Your task to perform on an android device: Open wifi settings Image 0: 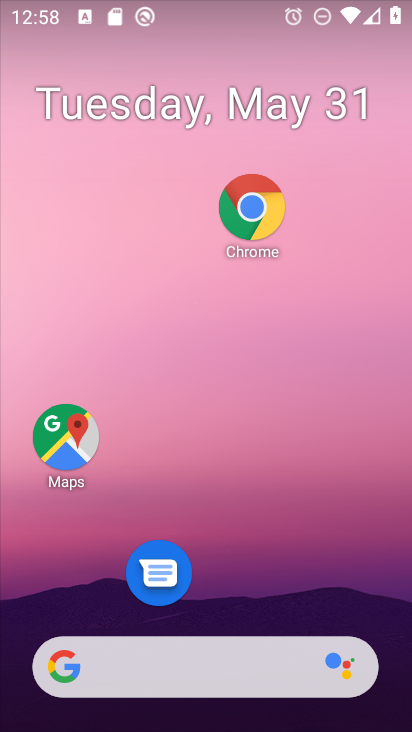
Step 0: drag from (132, 231) to (134, 81)
Your task to perform on an android device: Open wifi settings Image 1: 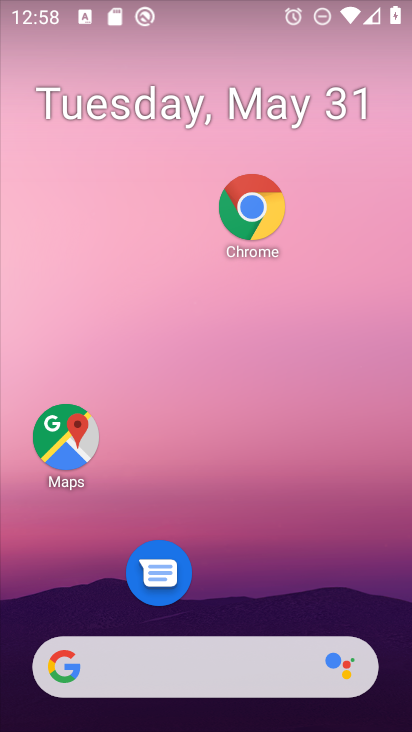
Step 1: drag from (226, 437) to (246, 8)
Your task to perform on an android device: Open wifi settings Image 2: 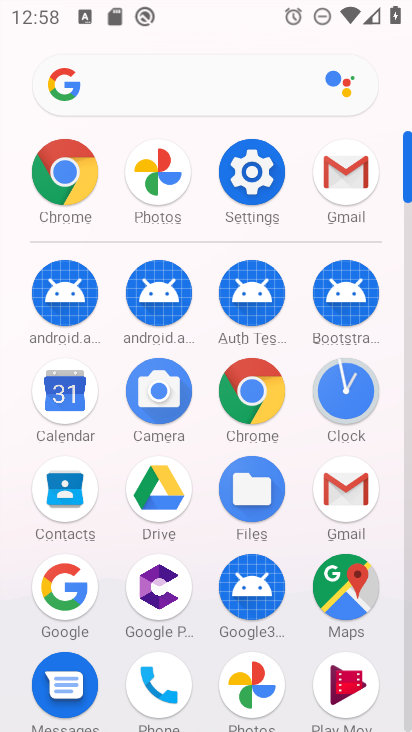
Step 2: click (232, 182)
Your task to perform on an android device: Open wifi settings Image 3: 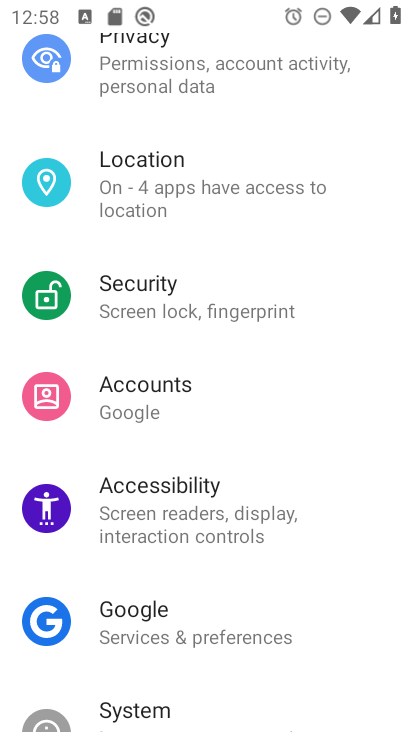
Step 3: drag from (185, 264) to (195, 555)
Your task to perform on an android device: Open wifi settings Image 4: 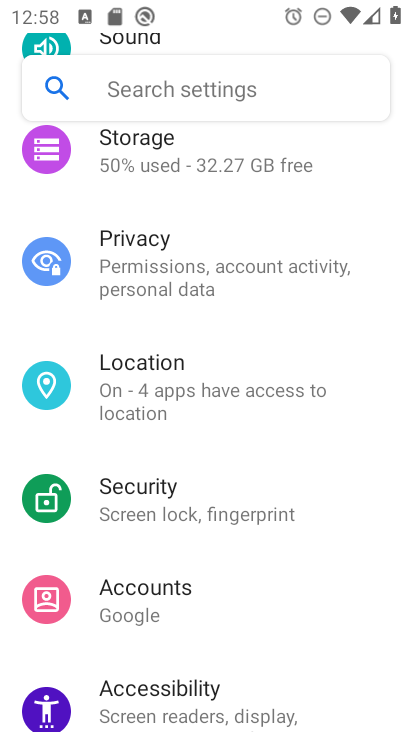
Step 4: drag from (184, 253) to (198, 561)
Your task to perform on an android device: Open wifi settings Image 5: 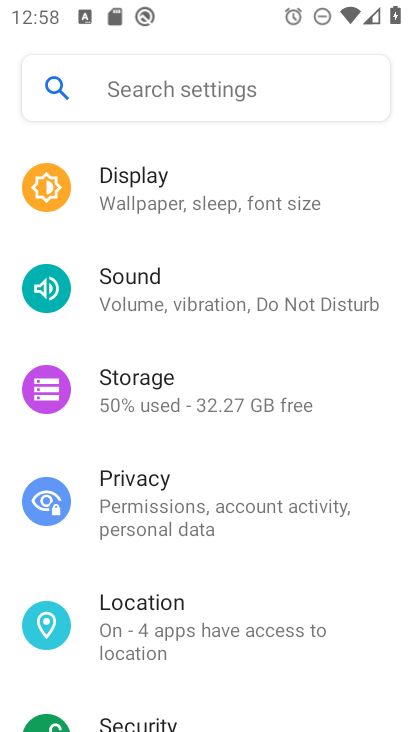
Step 5: drag from (200, 282) to (202, 546)
Your task to perform on an android device: Open wifi settings Image 6: 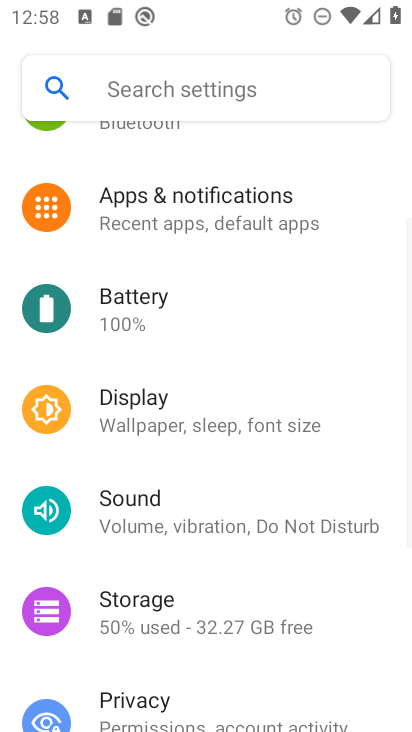
Step 6: drag from (202, 290) to (219, 731)
Your task to perform on an android device: Open wifi settings Image 7: 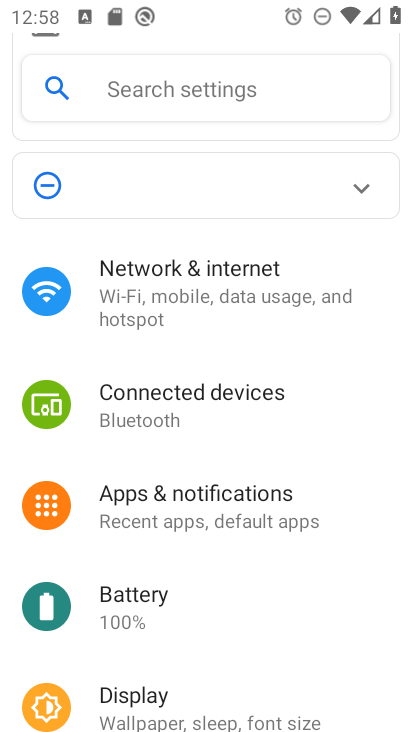
Step 7: click (216, 294)
Your task to perform on an android device: Open wifi settings Image 8: 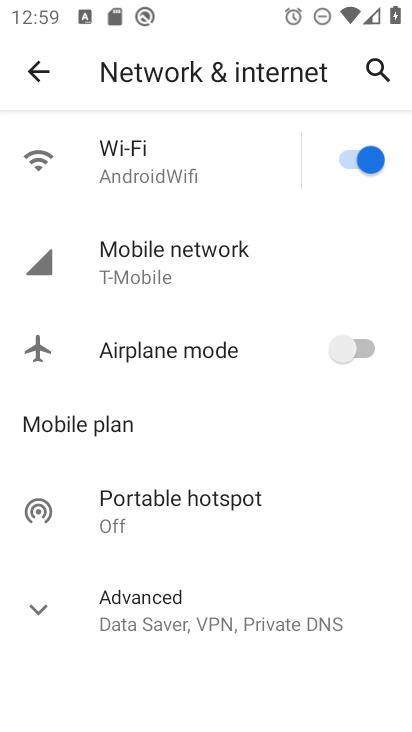
Step 8: click (151, 171)
Your task to perform on an android device: Open wifi settings Image 9: 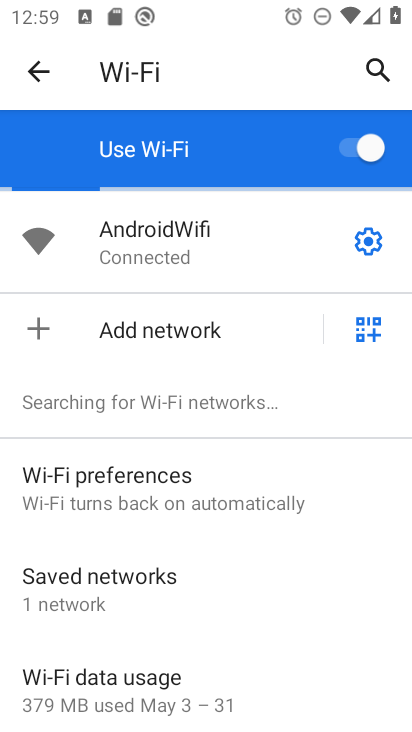
Step 9: task complete